Your task to perform on an android device: Open the calendar and show me this week's events? Image 0: 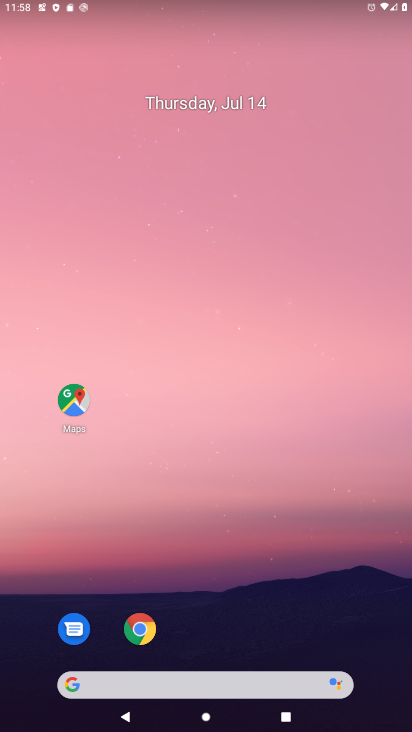
Step 0: press home button
Your task to perform on an android device: Open the calendar and show me this week's events? Image 1: 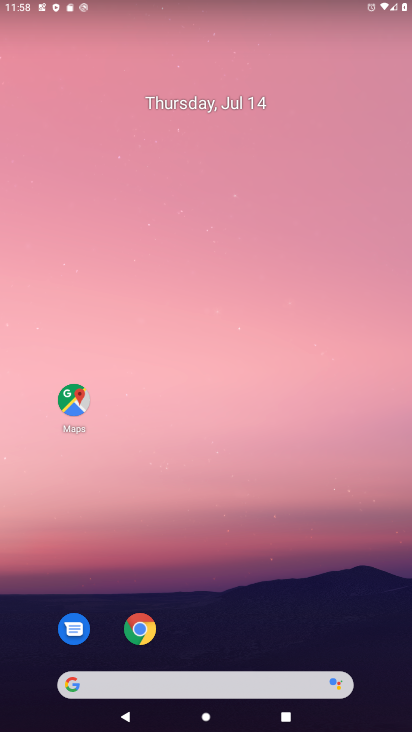
Step 1: drag from (269, 642) to (289, 30)
Your task to perform on an android device: Open the calendar and show me this week's events? Image 2: 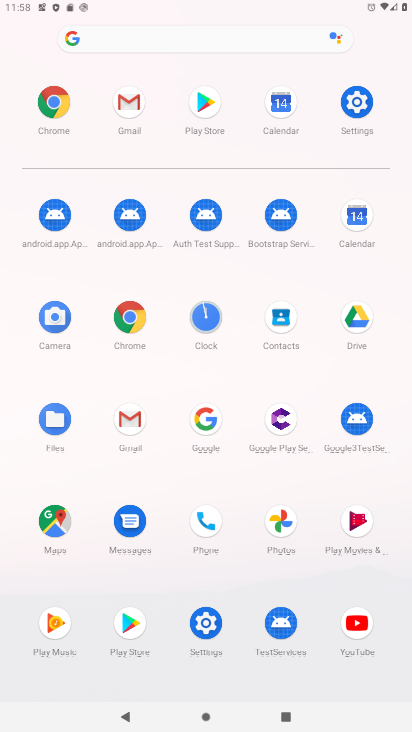
Step 2: click (357, 210)
Your task to perform on an android device: Open the calendar and show me this week's events? Image 3: 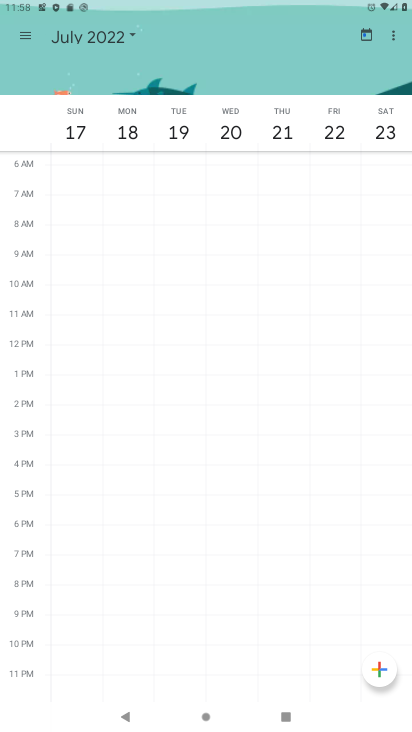
Step 3: click (30, 14)
Your task to perform on an android device: Open the calendar and show me this week's events? Image 4: 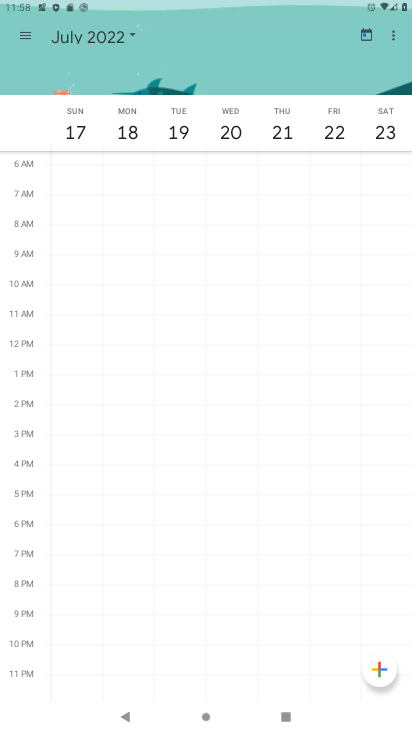
Step 4: click (25, 35)
Your task to perform on an android device: Open the calendar and show me this week's events? Image 5: 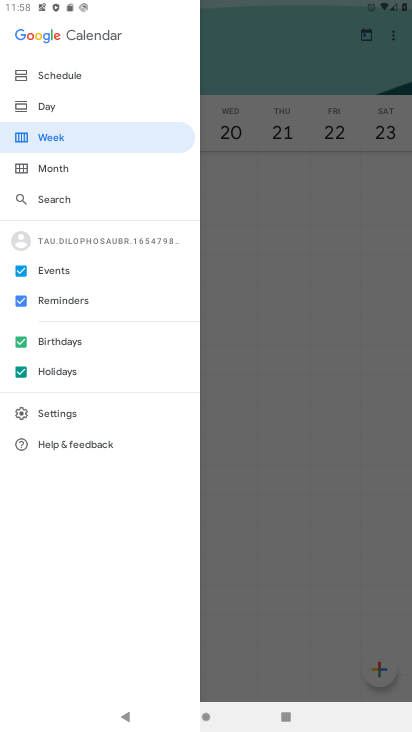
Step 5: click (61, 145)
Your task to perform on an android device: Open the calendar and show me this week's events? Image 6: 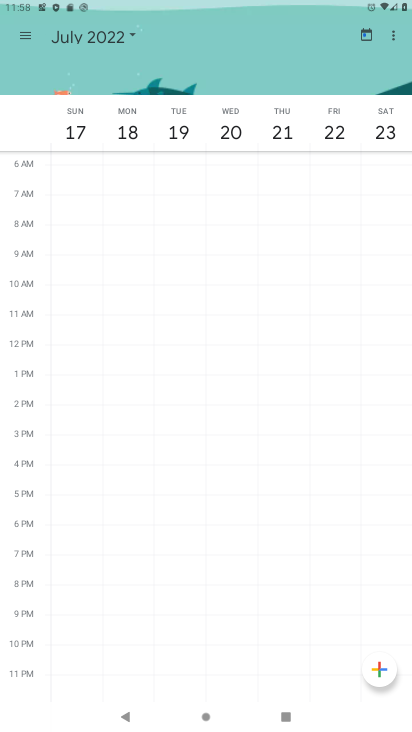
Step 6: task complete